Your task to perform on an android device: turn smart compose on in the gmail app Image 0: 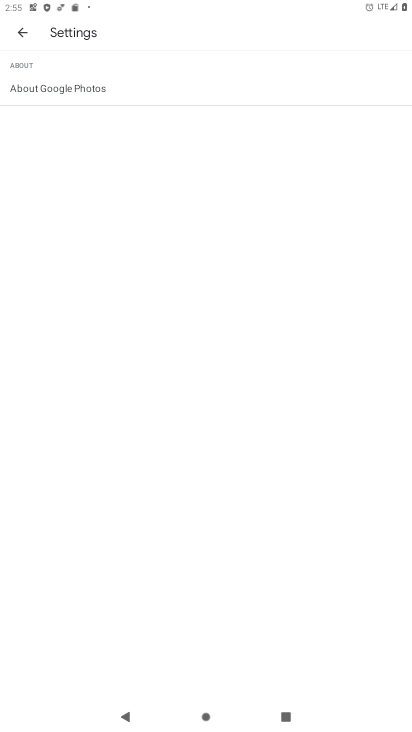
Step 0: press home button
Your task to perform on an android device: turn smart compose on in the gmail app Image 1: 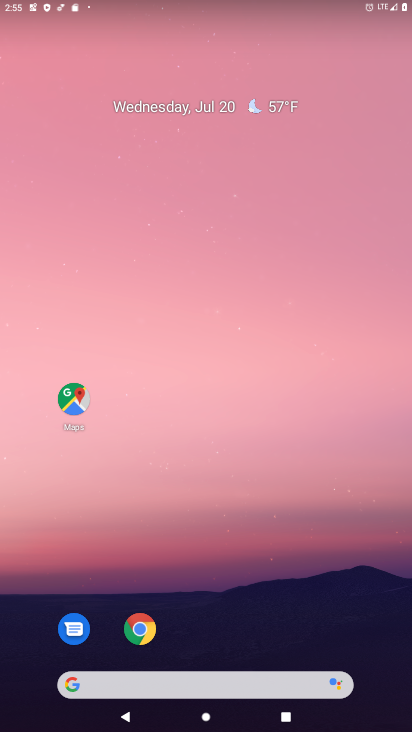
Step 1: drag from (395, 663) to (339, 76)
Your task to perform on an android device: turn smart compose on in the gmail app Image 2: 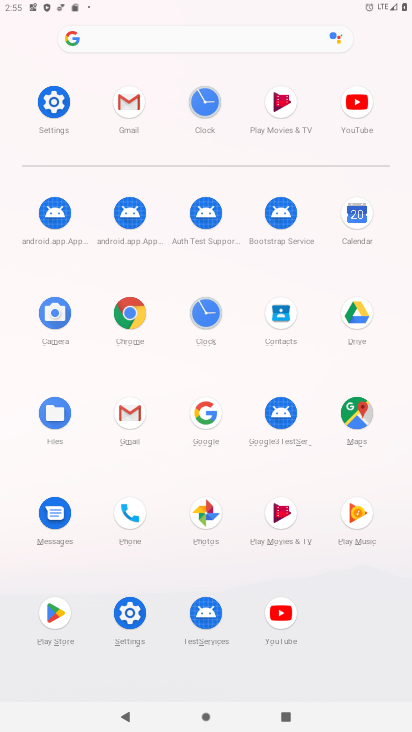
Step 2: click (131, 412)
Your task to perform on an android device: turn smart compose on in the gmail app Image 3: 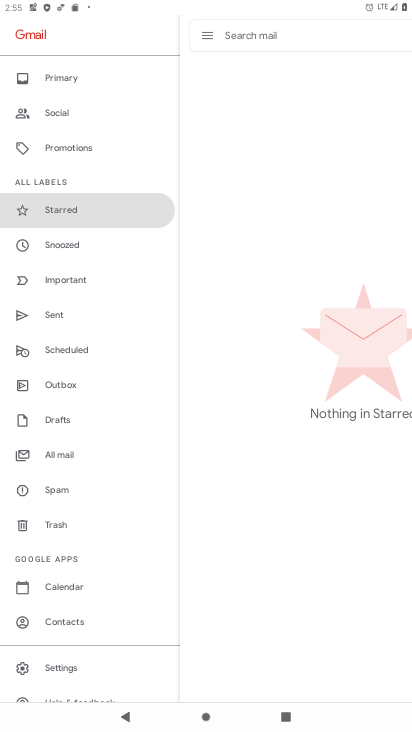
Step 3: click (57, 659)
Your task to perform on an android device: turn smart compose on in the gmail app Image 4: 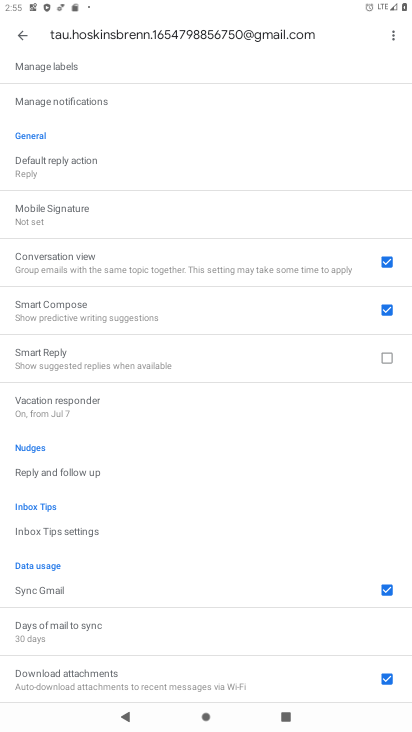
Step 4: task complete